Your task to perform on an android device: open a new tab in the chrome app Image 0: 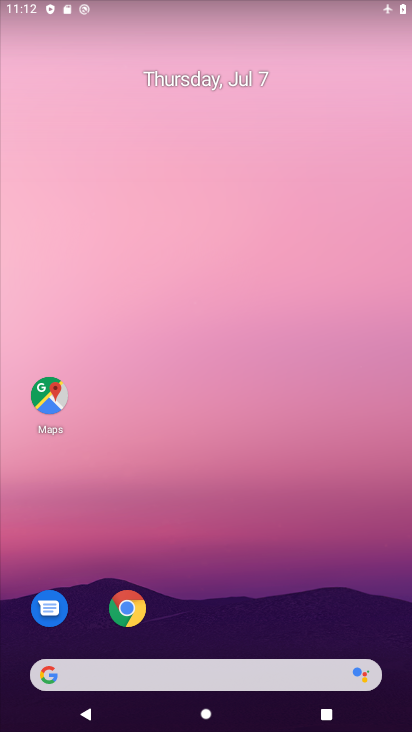
Step 0: drag from (200, 618) to (256, 20)
Your task to perform on an android device: open a new tab in the chrome app Image 1: 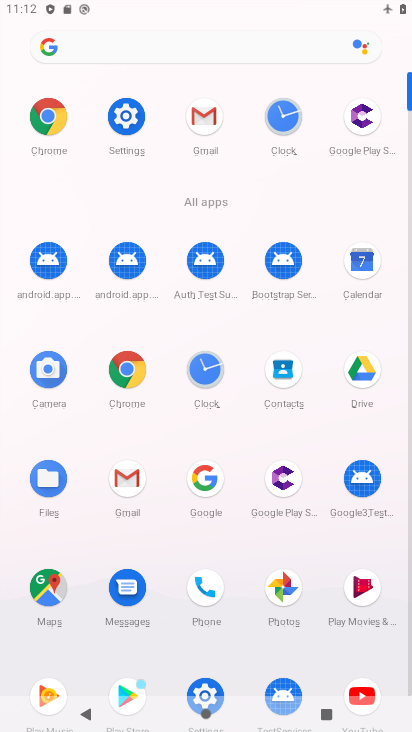
Step 1: click (128, 367)
Your task to perform on an android device: open a new tab in the chrome app Image 2: 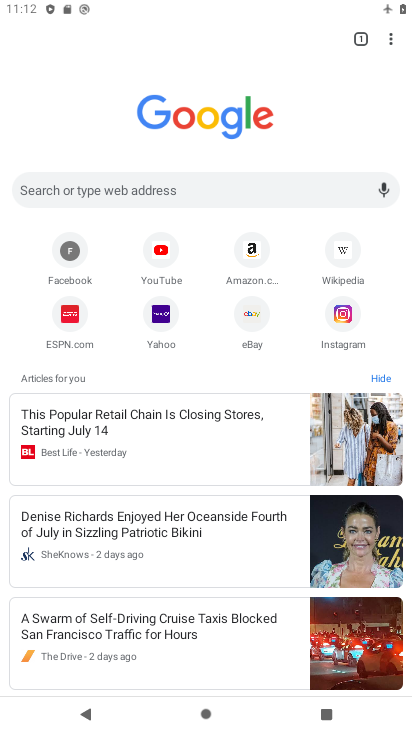
Step 2: click (389, 35)
Your task to perform on an android device: open a new tab in the chrome app Image 3: 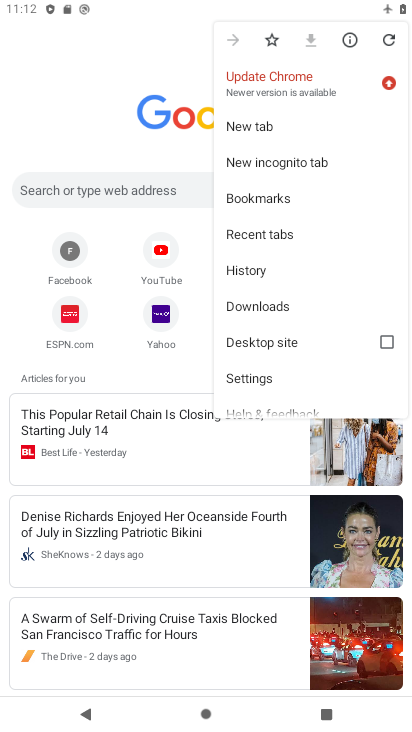
Step 3: click (266, 133)
Your task to perform on an android device: open a new tab in the chrome app Image 4: 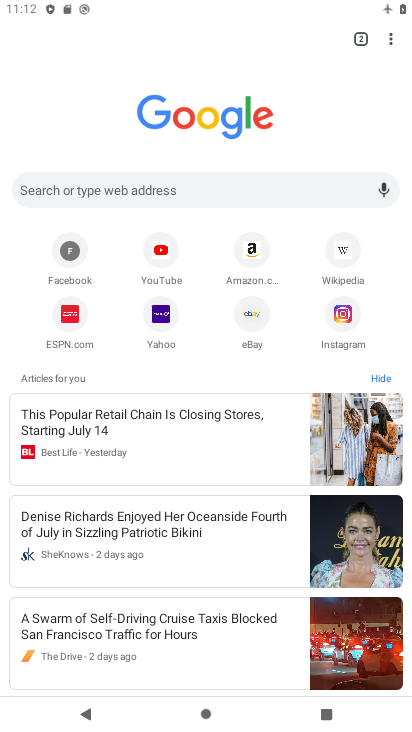
Step 4: task complete